Your task to perform on an android device: search for starred emails in the gmail app Image 0: 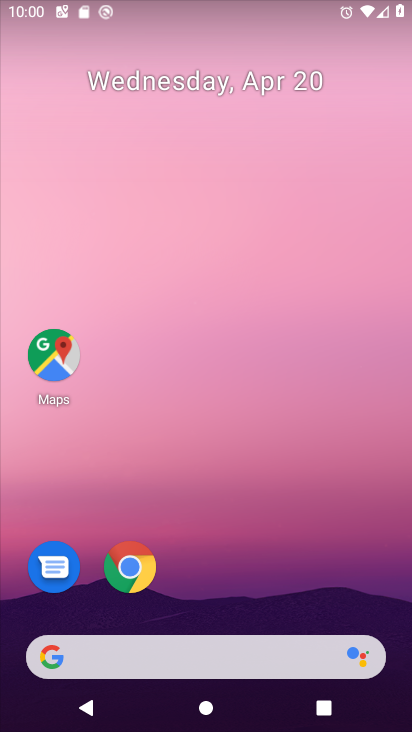
Step 0: drag from (319, 548) to (315, 146)
Your task to perform on an android device: search for starred emails in the gmail app Image 1: 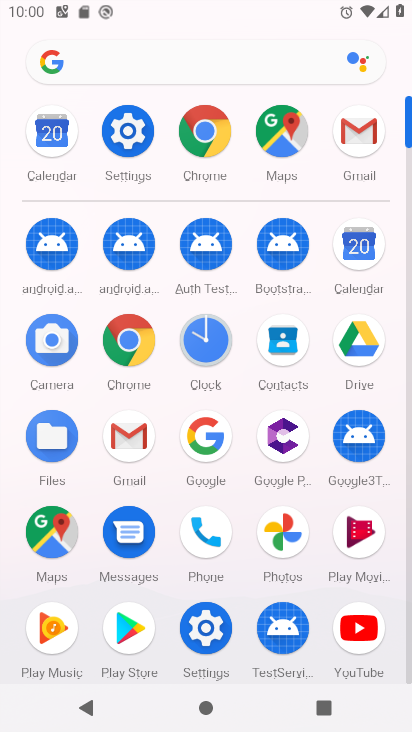
Step 1: click (365, 149)
Your task to perform on an android device: search for starred emails in the gmail app Image 2: 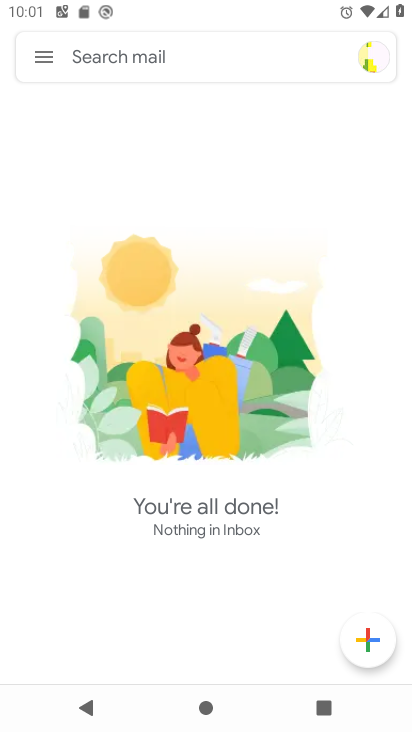
Step 2: click (41, 56)
Your task to perform on an android device: search for starred emails in the gmail app Image 3: 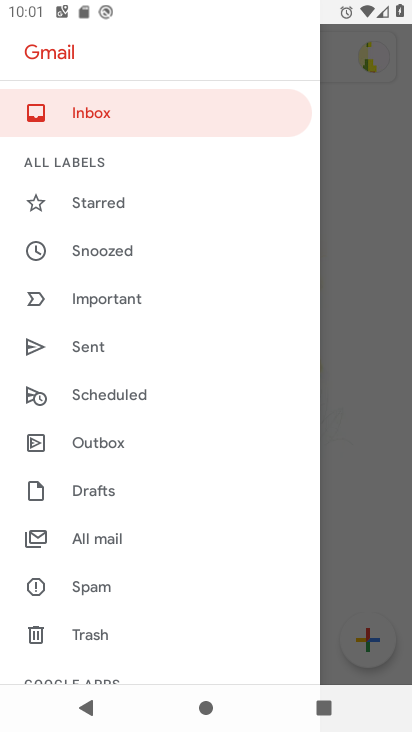
Step 3: click (124, 211)
Your task to perform on an android device: search for starred emails in the gmail app Image 4: 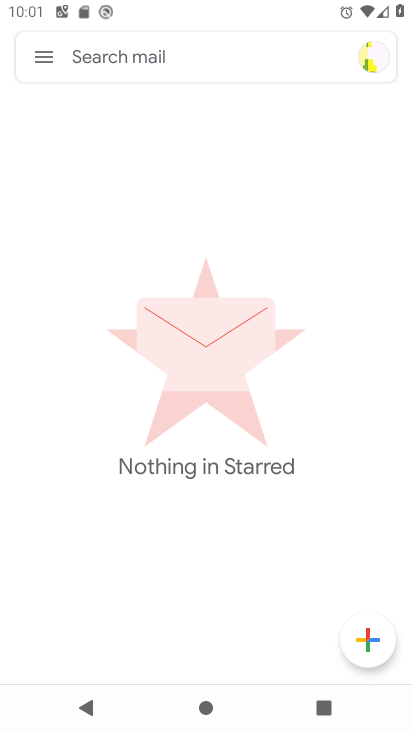
Step 4: task complete